Your task to perform on an android device: What's the weather going to be this weekend? Image 0: 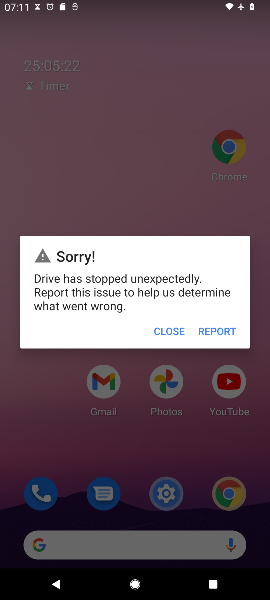
Step 0: press home button
Your task to perform on an android device: What's the weather going to be this weekend? Image 1: 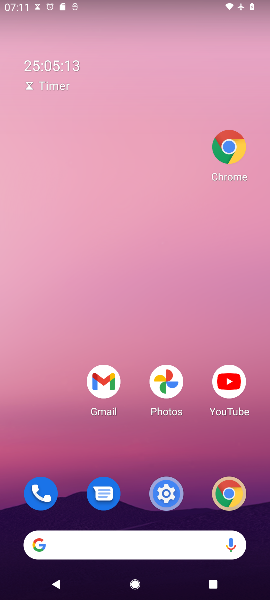
Step 1: click (36, 542)
Your task to perform on an android device: What's the weather going to be this weekend? Image 2: 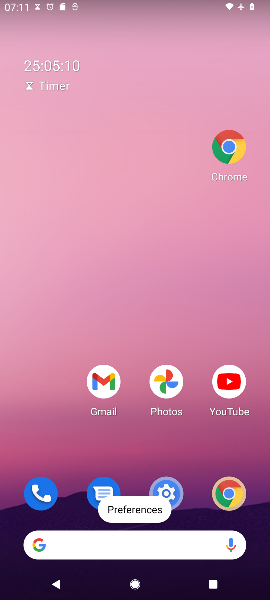
Step 2: click (40, 545)
Your task to perform on an android device: What's the weather going to be this weekend? Image 3: 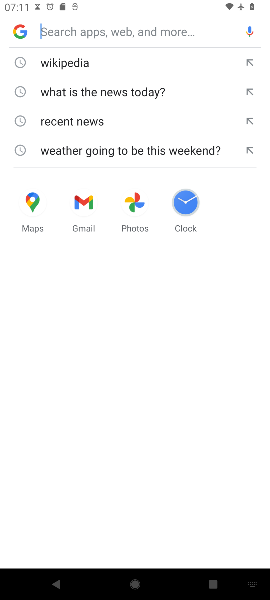
Step 3: click (124, 150)
Your task to perform on an android device: What's the weather going to be this weekend? Image 4: 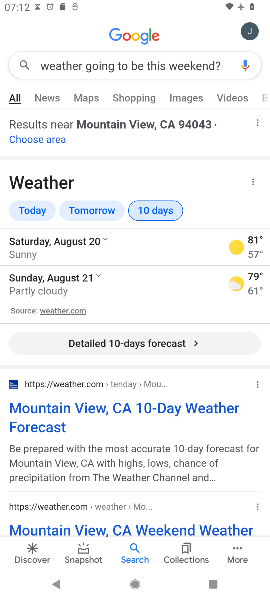
Step 4: task complete